Your task to perform on an android device: Search for good Italian restaurants on Maps Image 0: 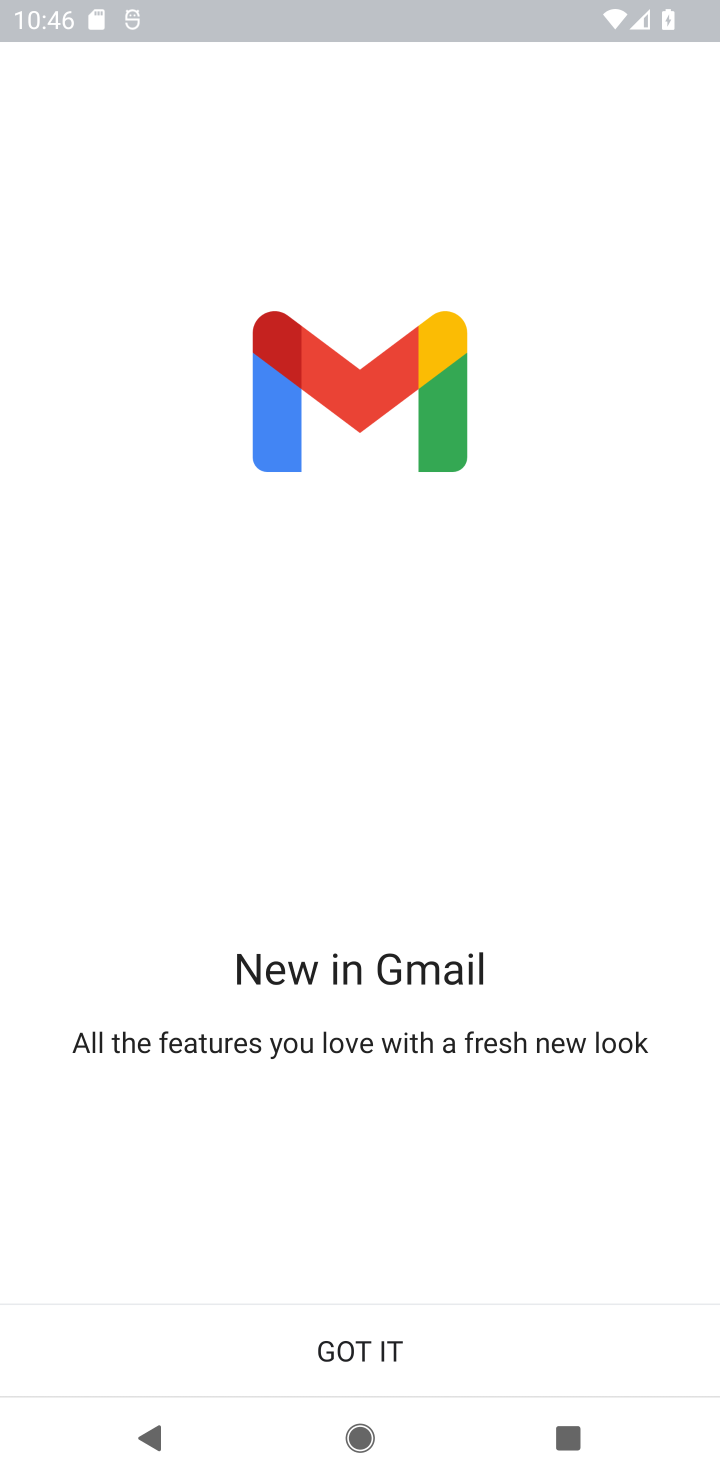
Step 0: press home button
Your task to perform on an android device: Search for good Italian restaurants on Maps Image 1: 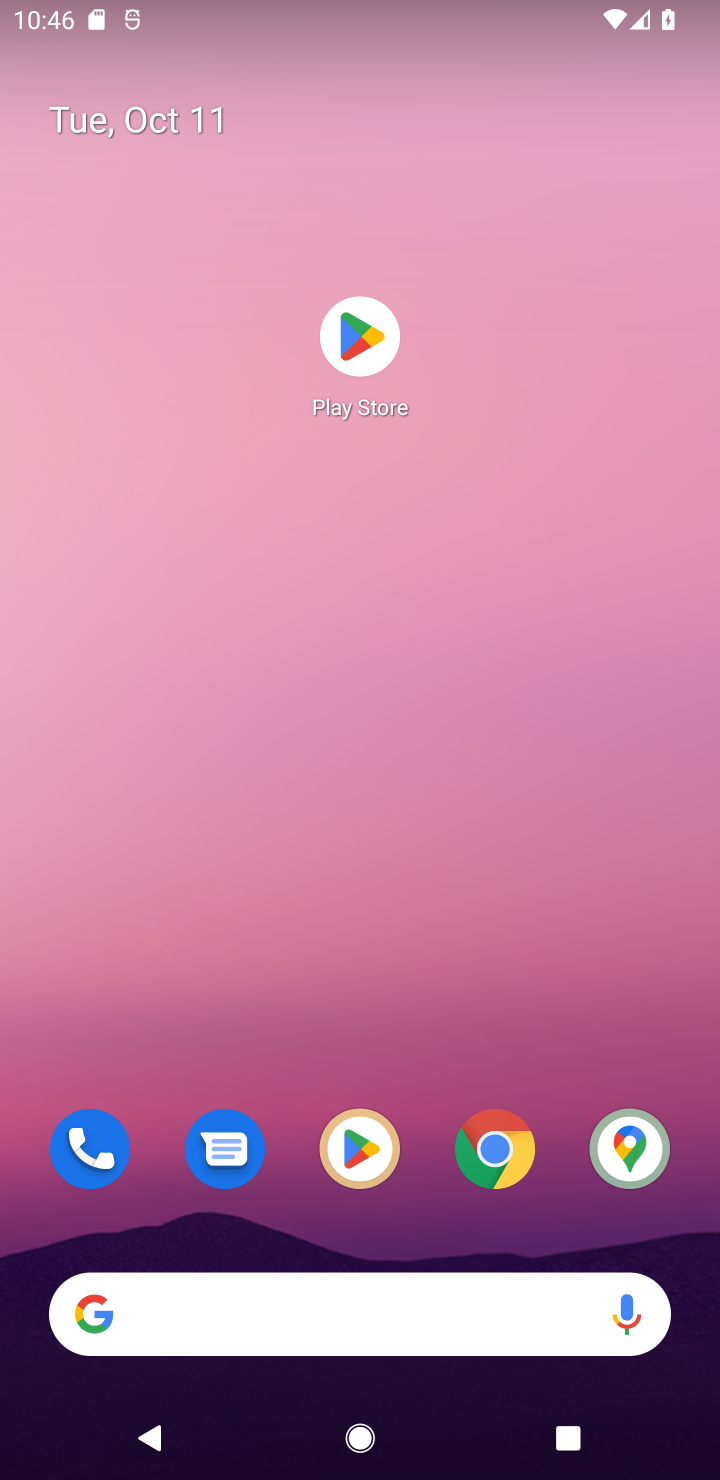
Step 1: click (409, 1293)
Your task to perform on an android device: Search for good Italian restaurants on Maps Image 2: 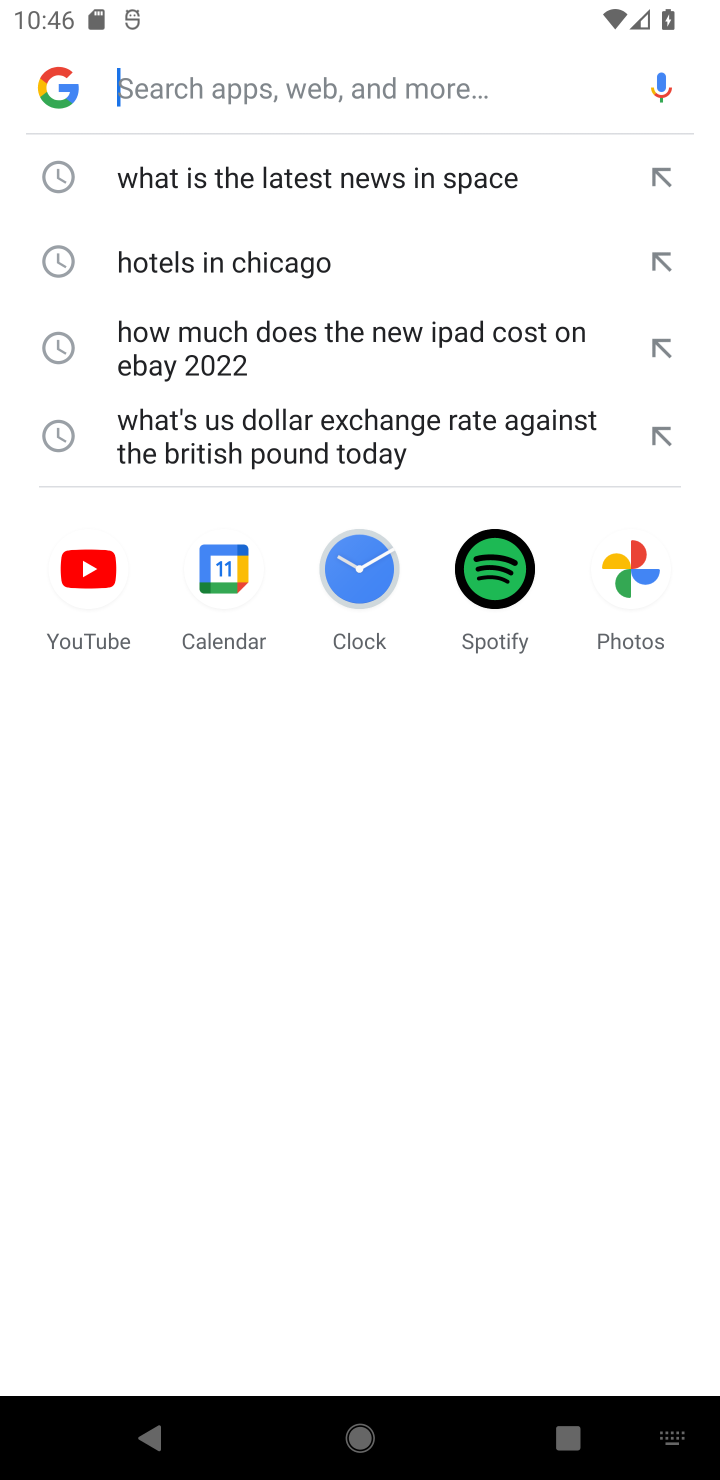
Step 2: press back button
Your task to perform on an android device: Search for good Italian restaurants on Maps Image 3: 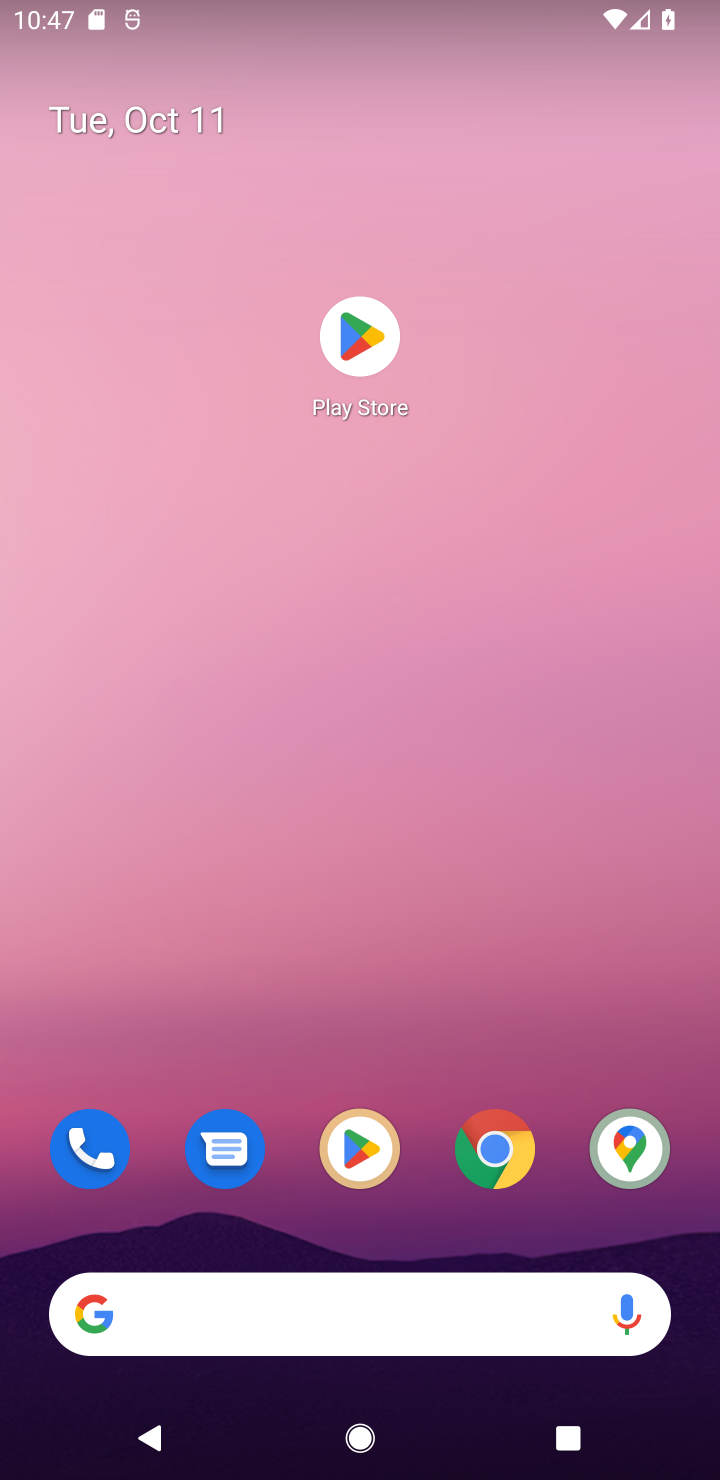
Step 3: click (646, 1135)
Your task to perform on an android device: Search for good Italian restaurants on Maps Image 4: 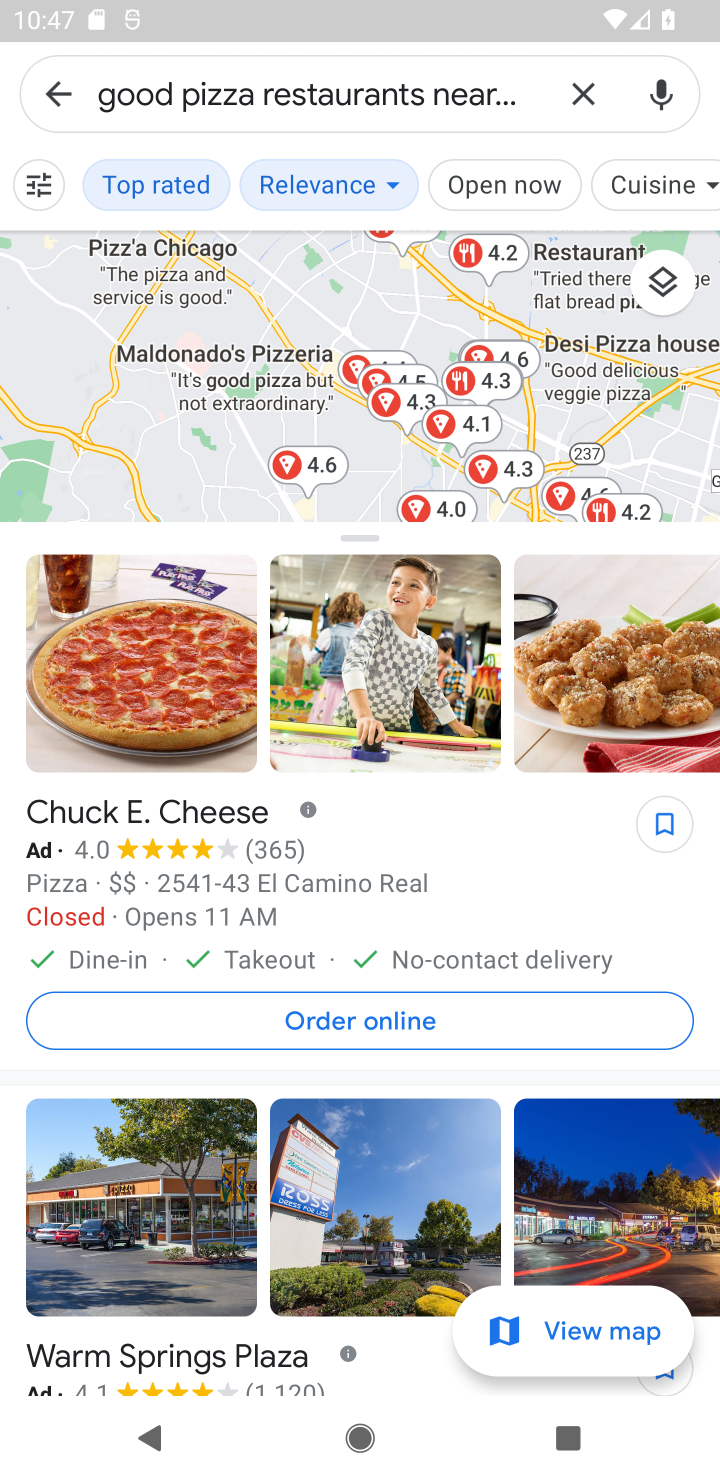
Step 4: click (579, 99)
Your task to perform on an android device: Search for good Italian restaurants on Maps Image 5: 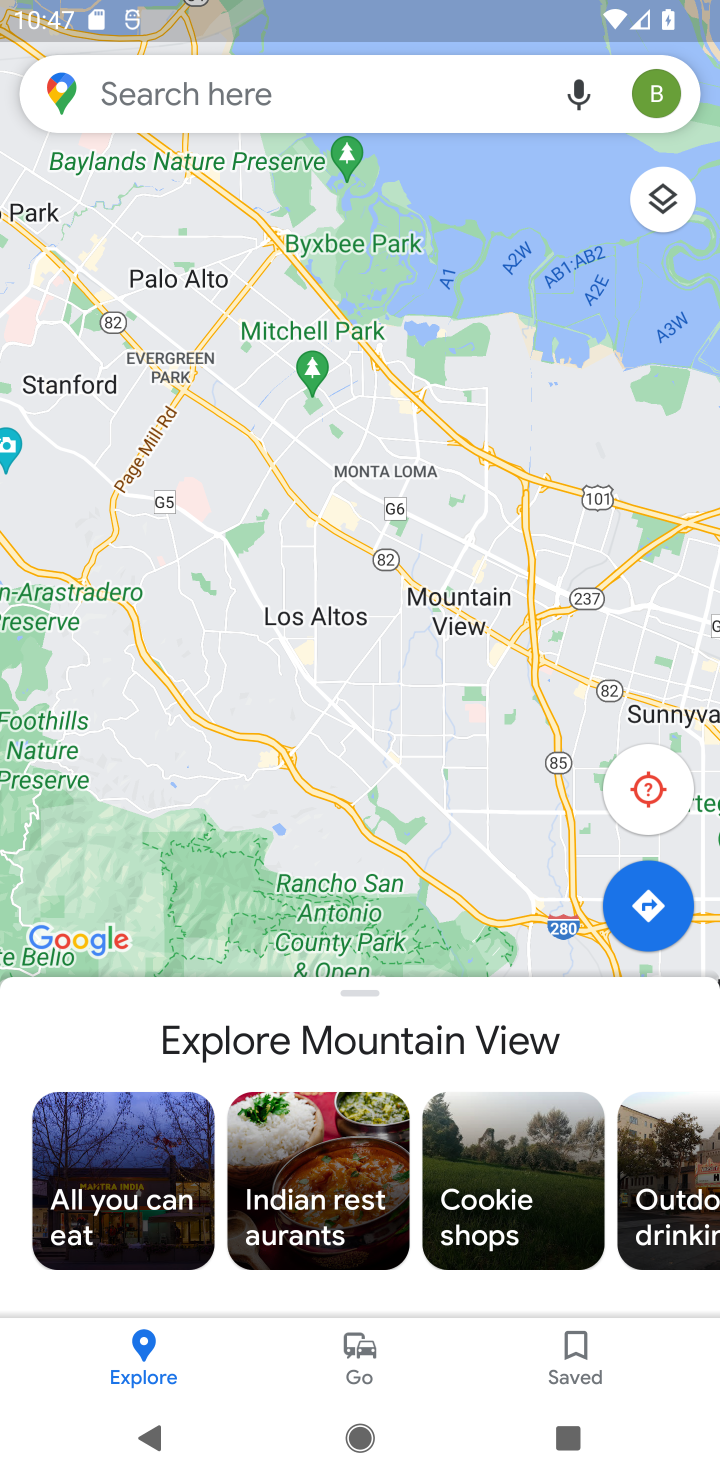
Step 5: click (329, 81)
Your task to perform on an android device: Search for good Italian restaurants on Maps Image 6: 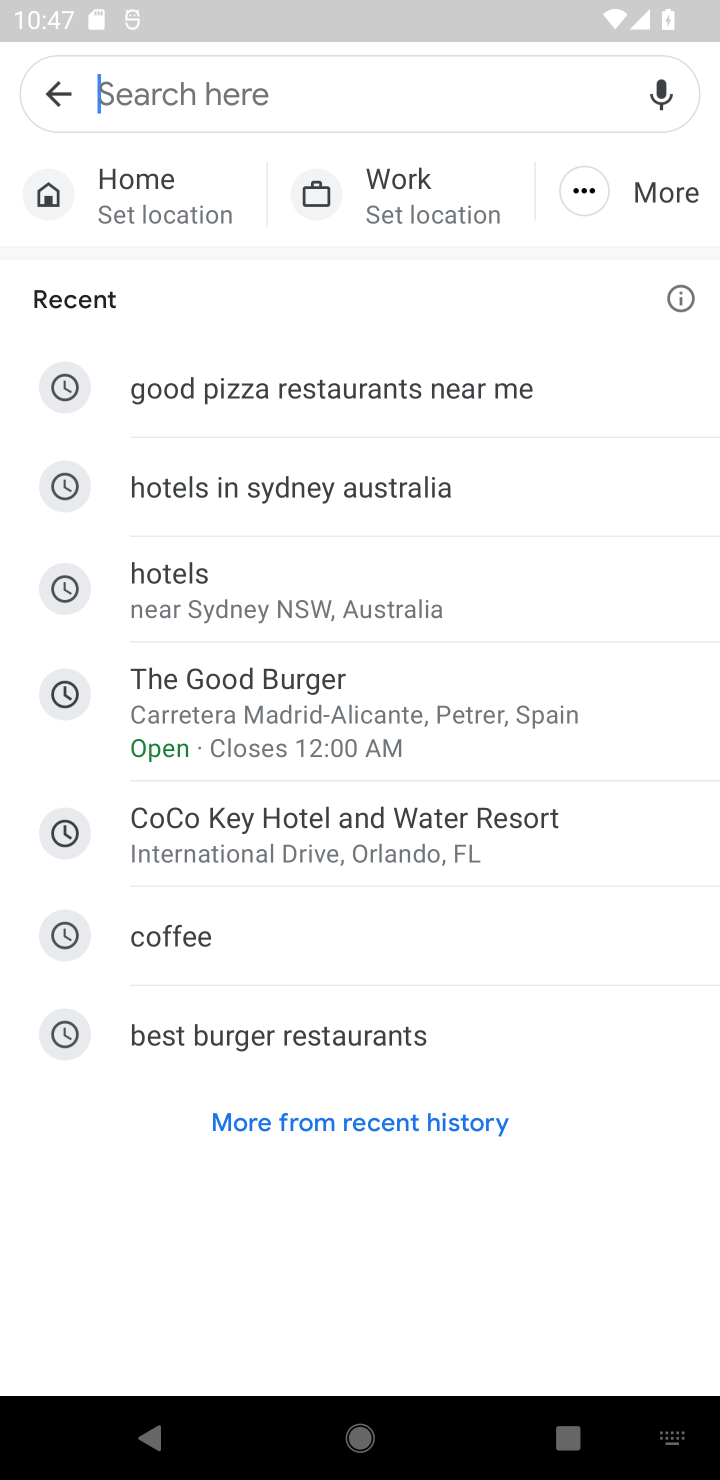
Step 6: type " good Italian restaurants "
Your task to perform on an android device: Search for good Italian restaurants on Maps Image 7: 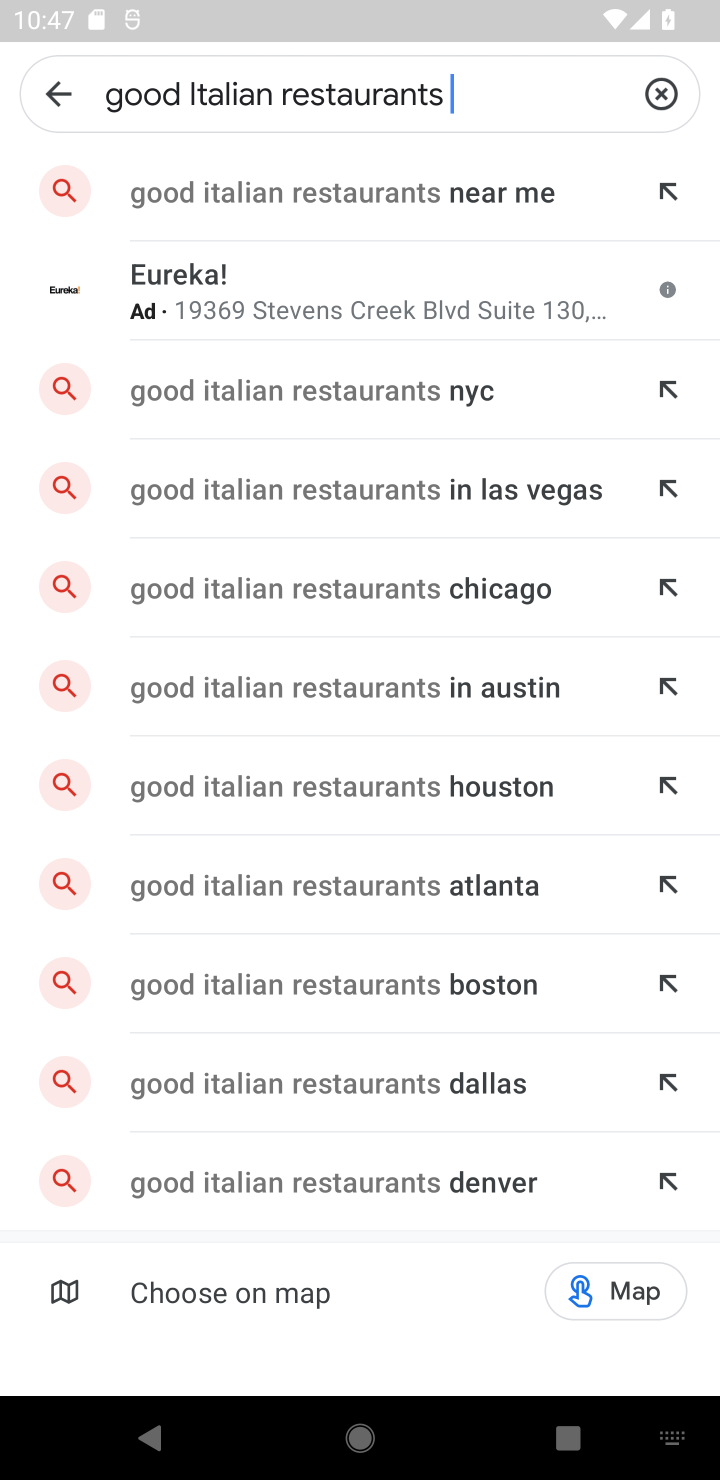
Step 7: click (278, 185)
Your task to perform on an android device: Search for good Italian restaurants on Maps Image 8: 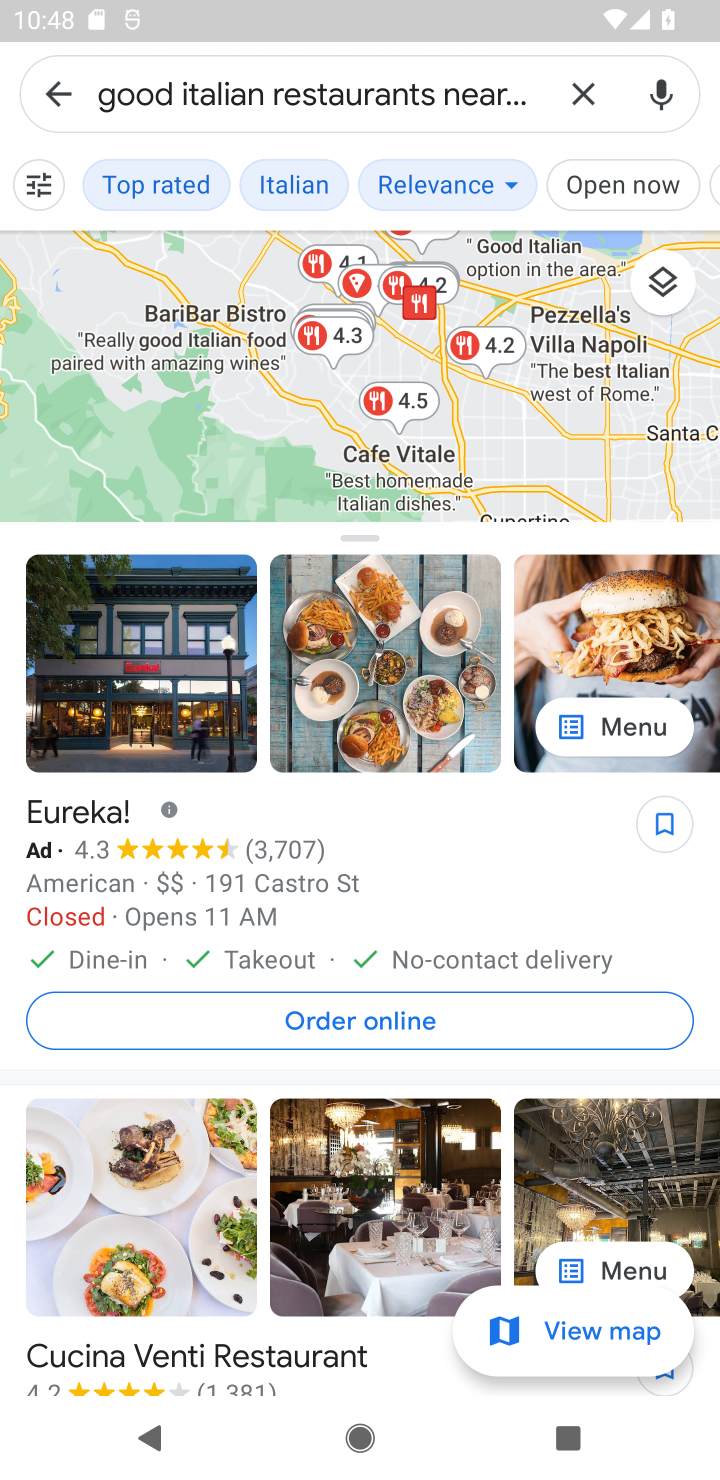
Step 8: click (375, 615)
Your task to perform on an android device: Search for good Italian restaurants on Maps Image 9: 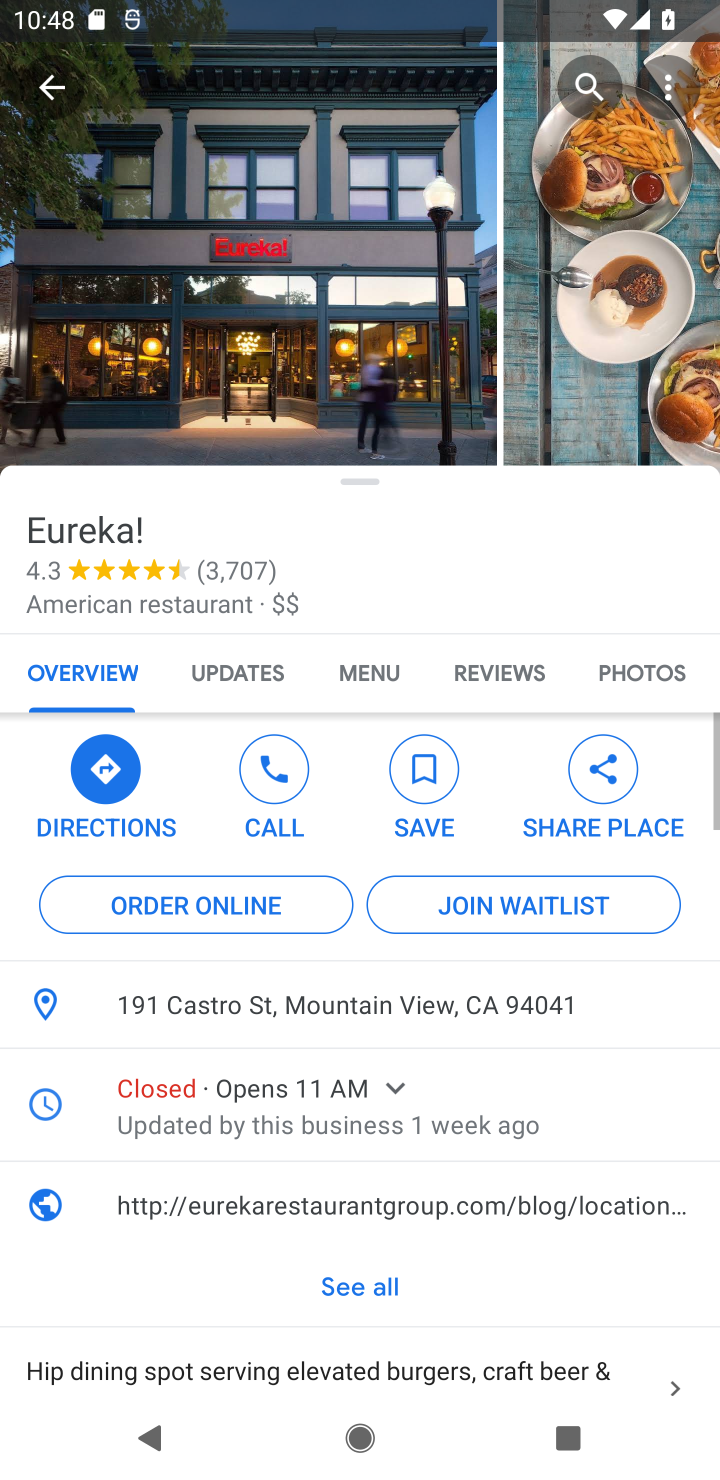
Step 9: task complete